Your task to perform on an android device: remove spam from my inbox in the gmail app Image 0: 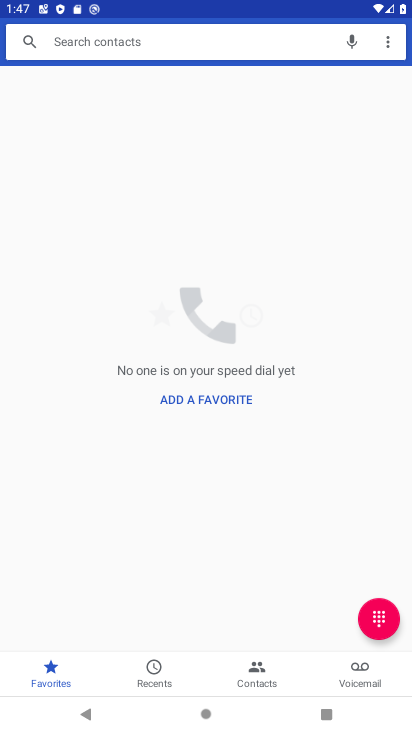
Step 0: press home button
Your task to perform on an android device: remove spam from my inbox in the gmail app Image 1: 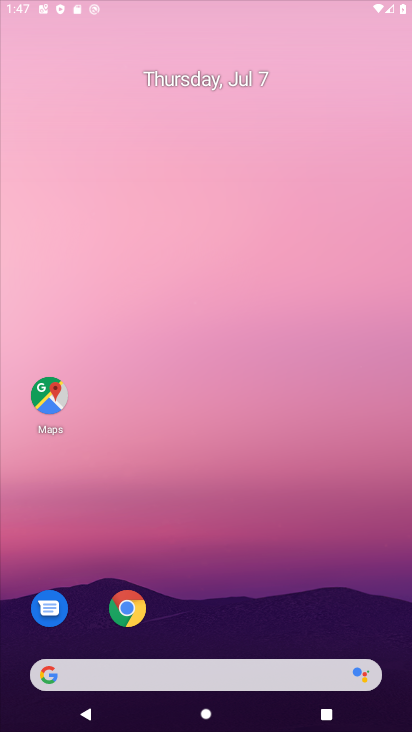
Step 1: drag from (256, 686) to (142, 5)
Your task to perform on an android device: remove spam from my inbox in the gmail app Image 2: 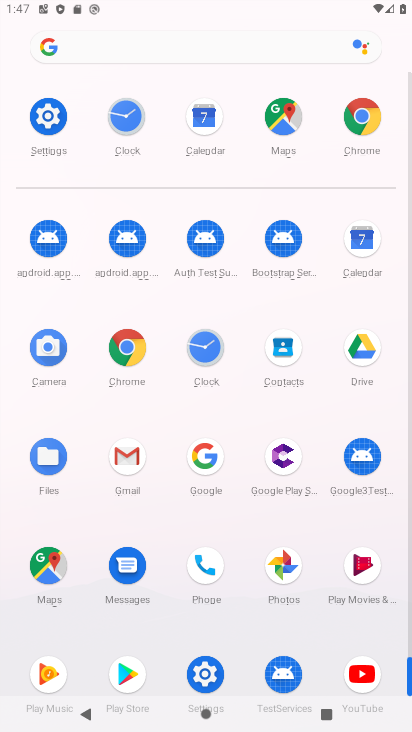
Step 2: click (127, 447)
Your task to perform on an android device: remove spam from my inbox in the gmail app Image 3: 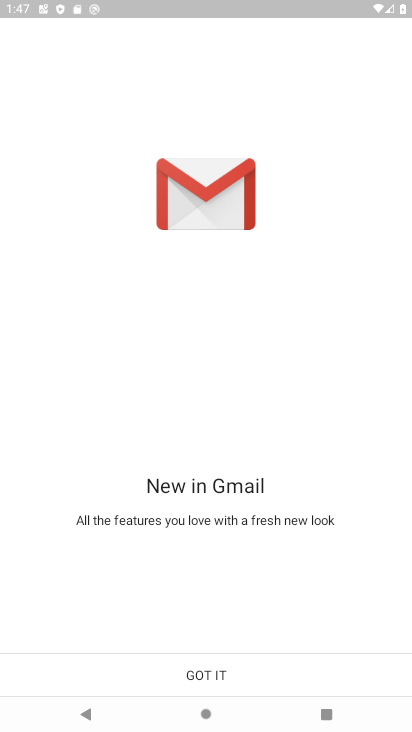
Step 3: click (221, 669)
Your task to perform on an android device: remove spam from my inbox in the gmail app Image 4: 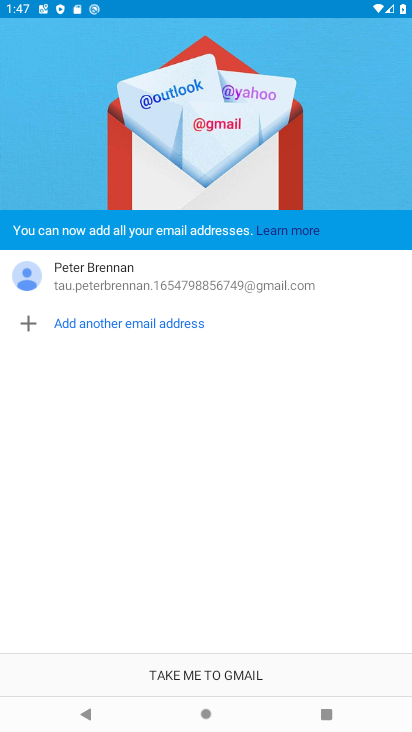
Step 4: click (221, 669)
Your task to perform on an android device: remove spam from my inbox in the gmail app Image 5: 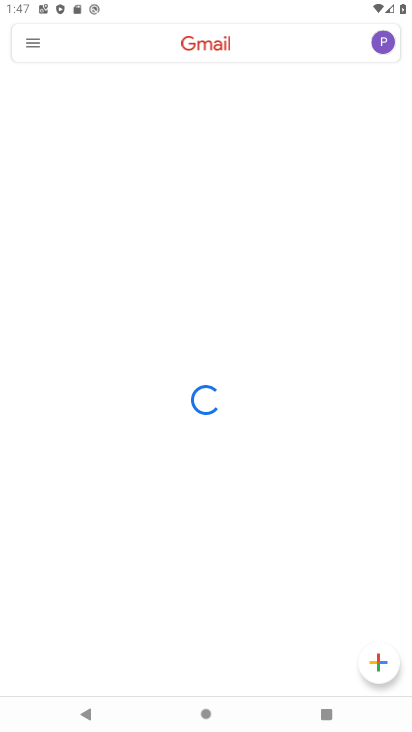
Step 5: click (40, 41)
Your task to perform on an android device: remove spam from my inbox in the gmail app Image 6: 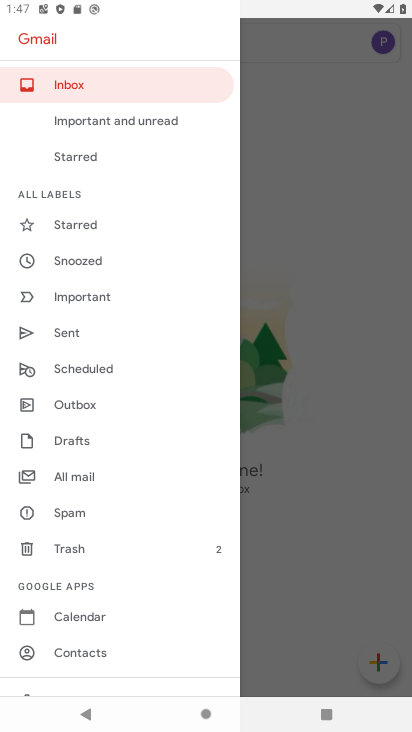
Step 6: click (90, 517)
Your task to perform on an android device: remove spam from my inbox in the gmail app Image 7: 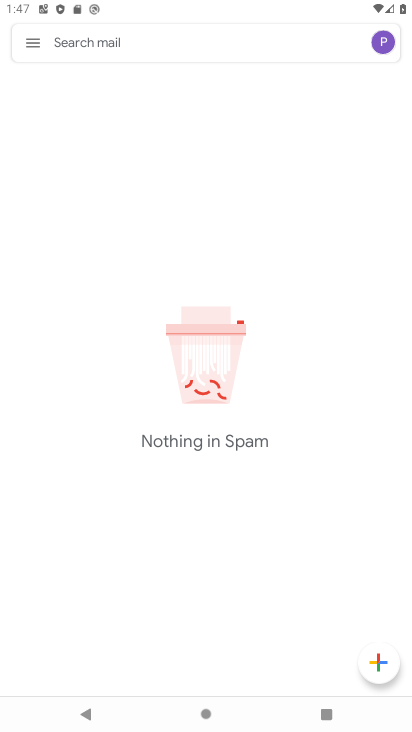
Step 7: task complete